Your task to perform on an android device: turn off notifications in google photos Image 0: 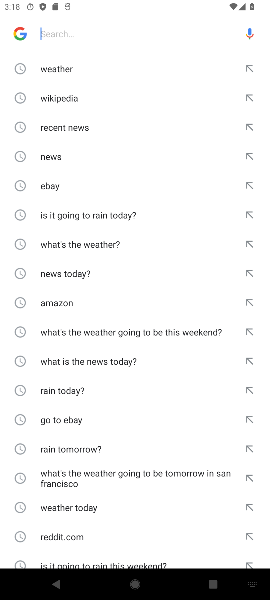
Step 0: press home button
Your task to perform on an android device: turn off notifications in google photos Image 1: 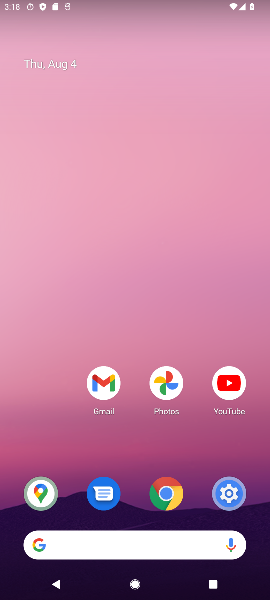
Step 1: click (165, 379)
Your task to perform on an android device: turn off notifications in google photos Image 2: 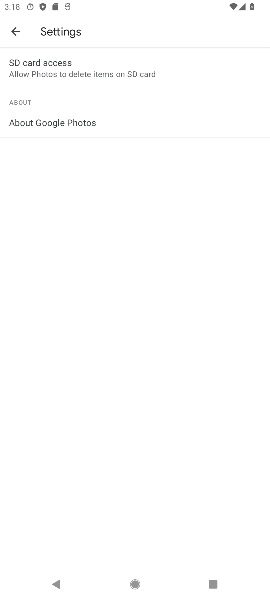
Step 2: click (13, 27)
Your task to perform on an android device: turn off notifications in google photos Image 3: 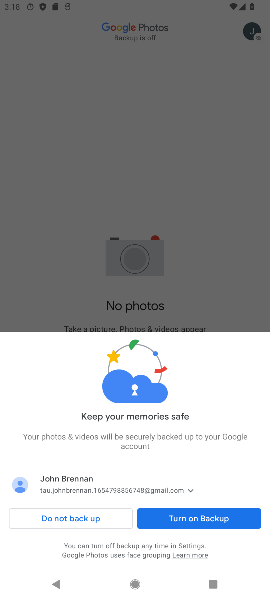
Step 3: click (180, 173)
Your task to perform on an android device: turn off notifications in google photos Image 4: 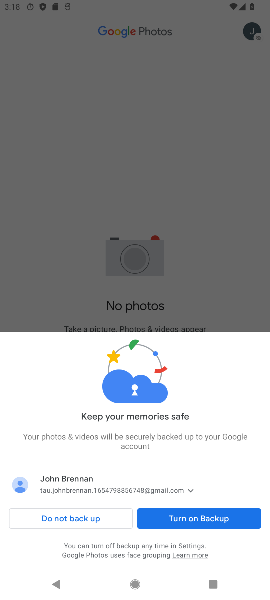
Step 4: click (81, 519)
Your task to perform on an android device: turn off notifications in google photos Image 5: 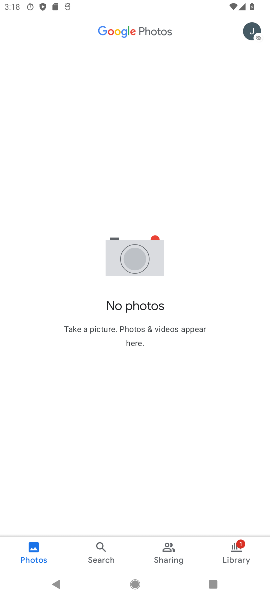
Step 5: click (258, 29)
Your task to perform on an android device: turn off notifications in google photos Image 6: 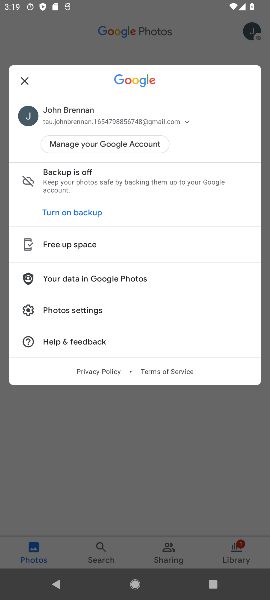
Step 6: click (66, 310)
Your task to perform on an android device: turn off notifications in google photos Image 7: 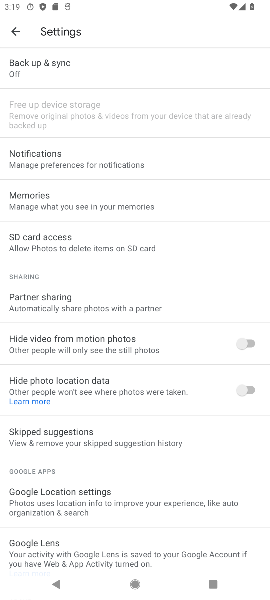
Step 7: click (65, 162)
Your task to perform on an android device: turn off notifications in google photos Image 8: 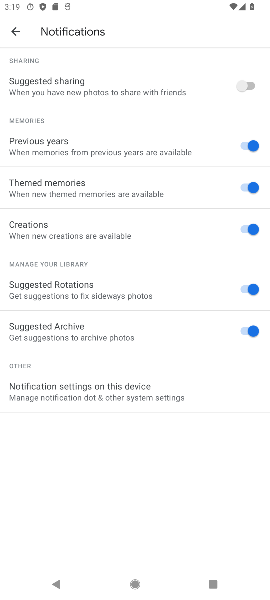
Step 8: click (116, 378)
Your task to perform on an android device: turn off notifications in google photos Image 9: 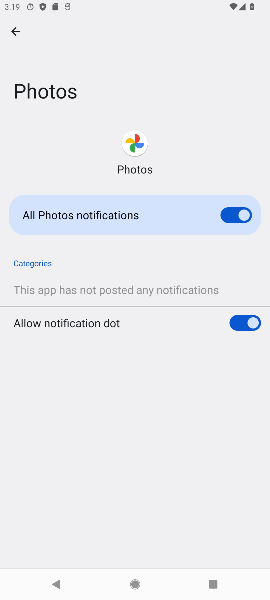
Step 9: task complete